Your task to perform on an android device: What is the news today? Image 0: 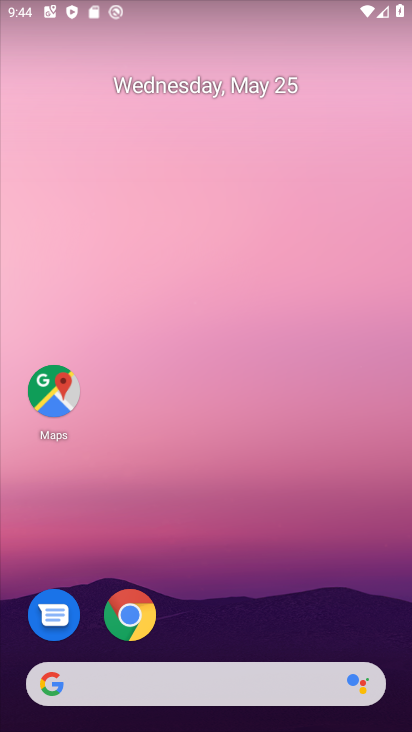
Step 0: click (276, 692)
Your task to perform on an android device: What is the news today? Image 1: 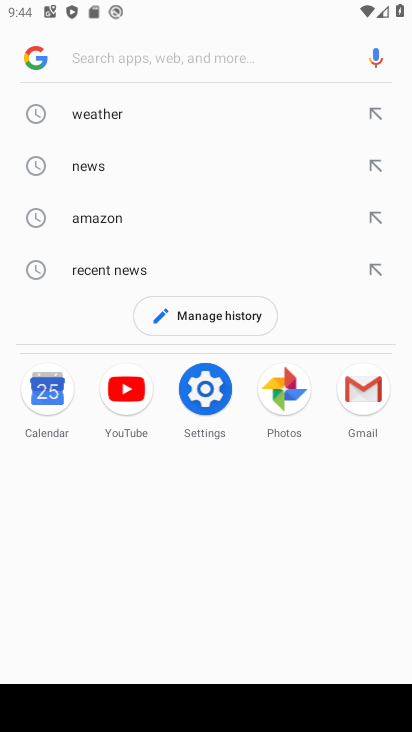
Step 1: click (88, 171)
Your task to perform on an android device: What is the news today? Image 2: 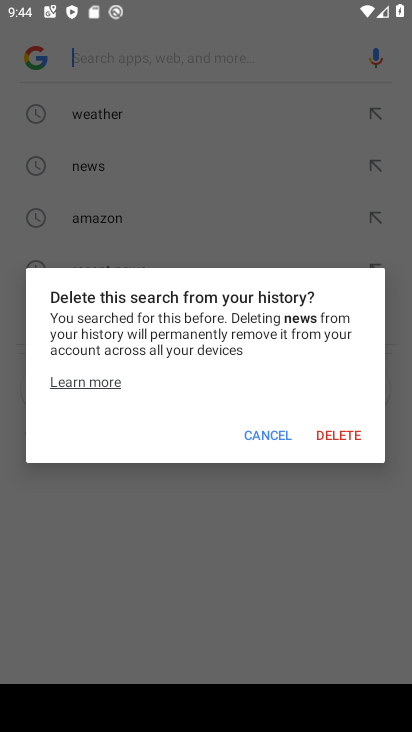
Step 2: click (286, 430)
Your task to perform on an android device: What is the news today? Image 3: 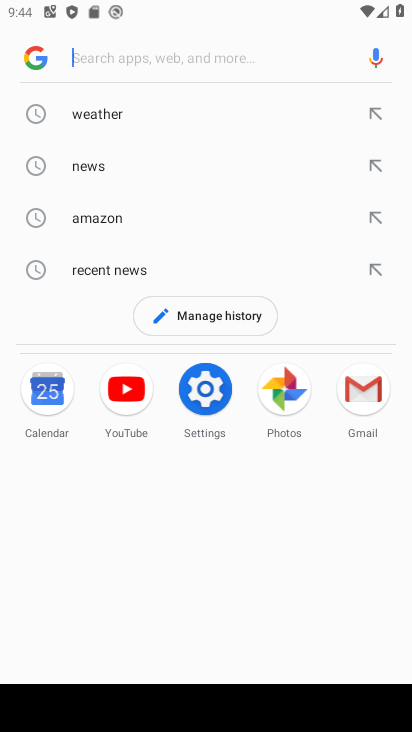
Step 3: click (82, 153)
Your task to perform on an android device: What is the news today? Image 4: 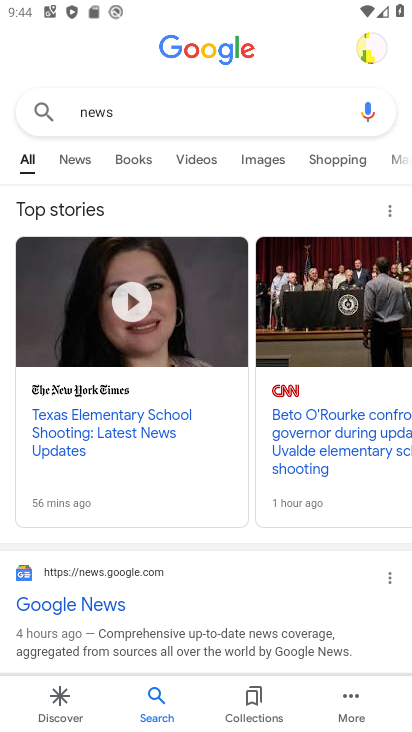
Step 4: click (145, 406)
Your task to perform on an android device: What is the news today? Image 5: 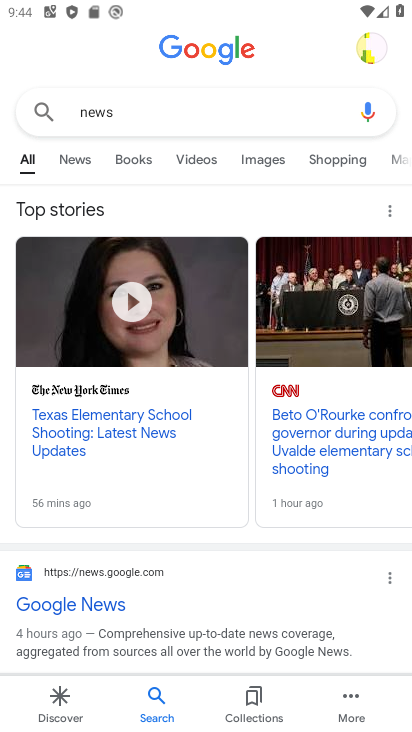
Step 5: task complete